Your task to perform on an android device: turn on data saver in the chrome app Image 0: 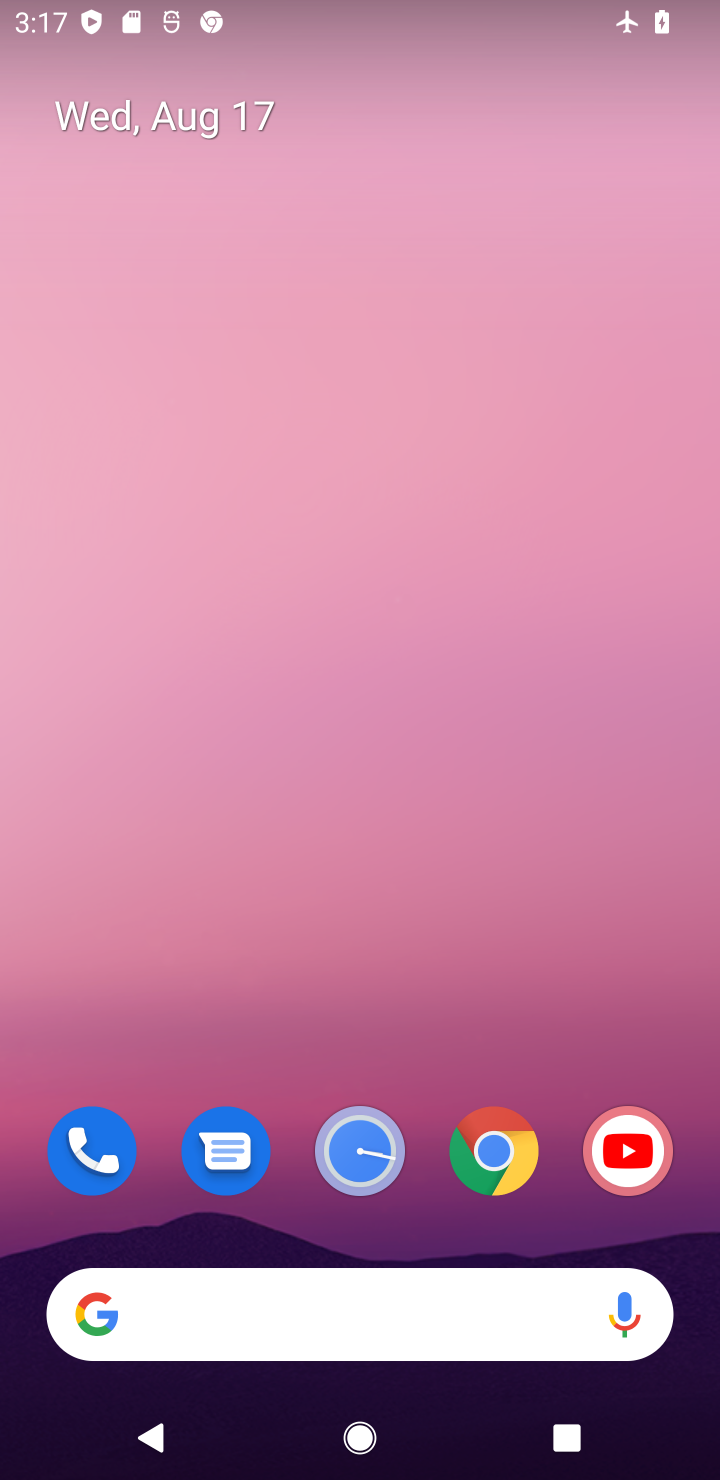
Step 0: drag from (386, 1227) to (387, 24)
Your task to perform on an android device: turn on data saver in the chrome app Image 1: 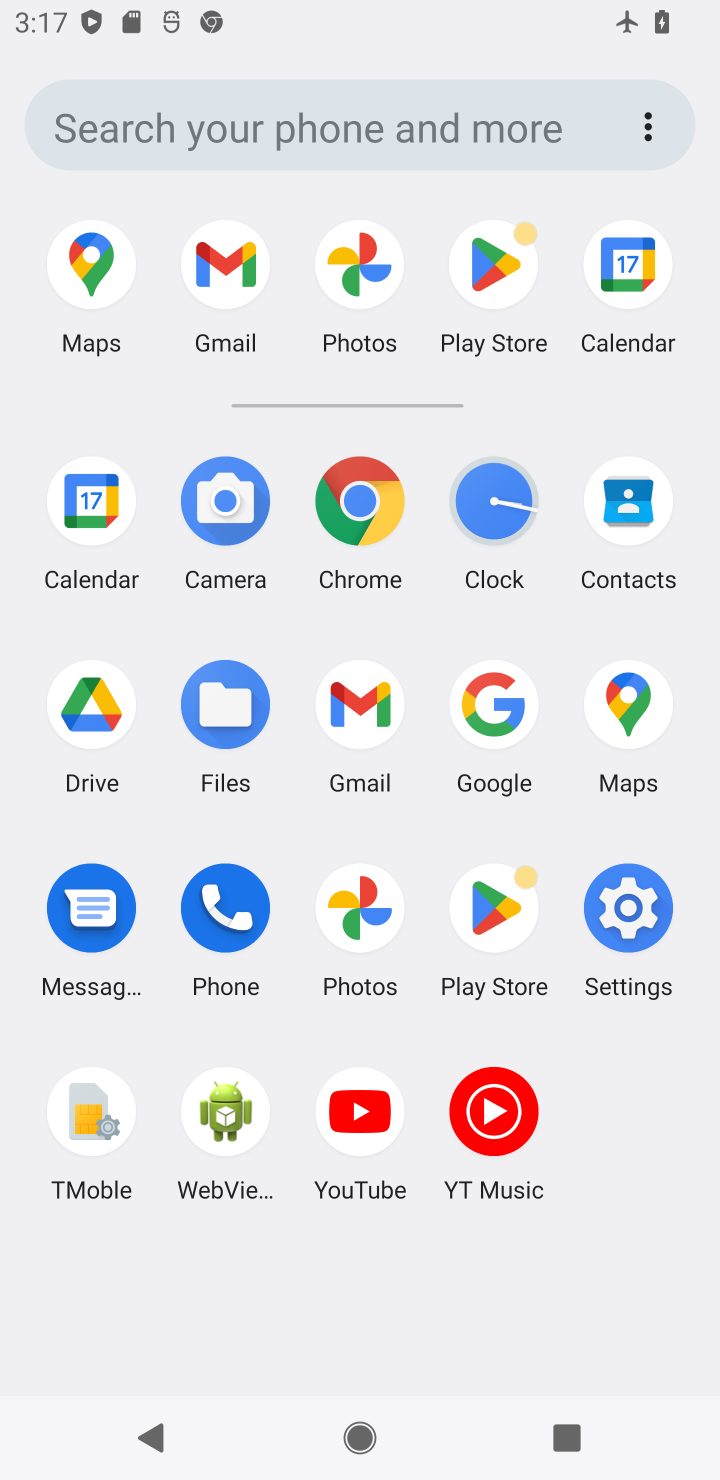
Step 1: click (370, 502)
Your task to perform on an android device: turn on data saver in the chrome app Image 2: 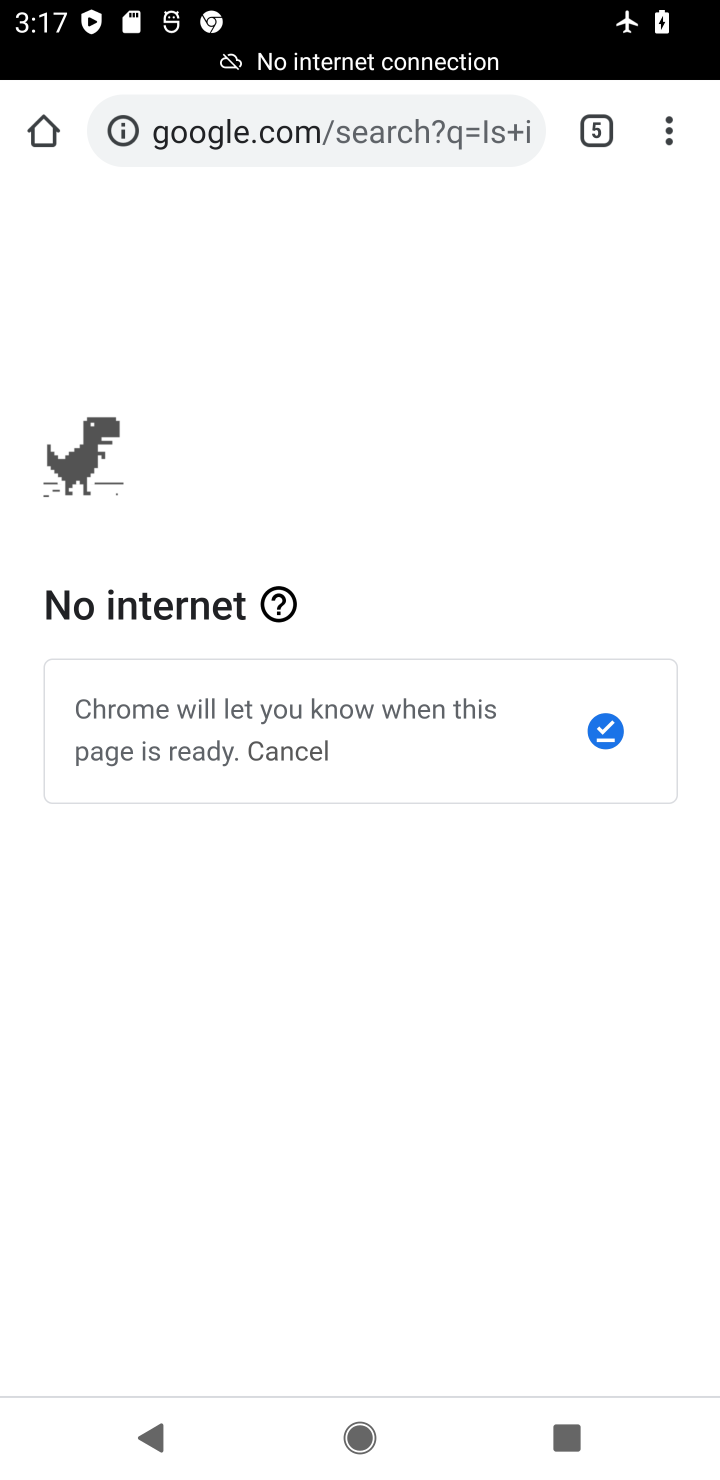
Step 2: click (667, 123)
Your task to perform on an android device: turn on data saver in the chrome app Image 3: 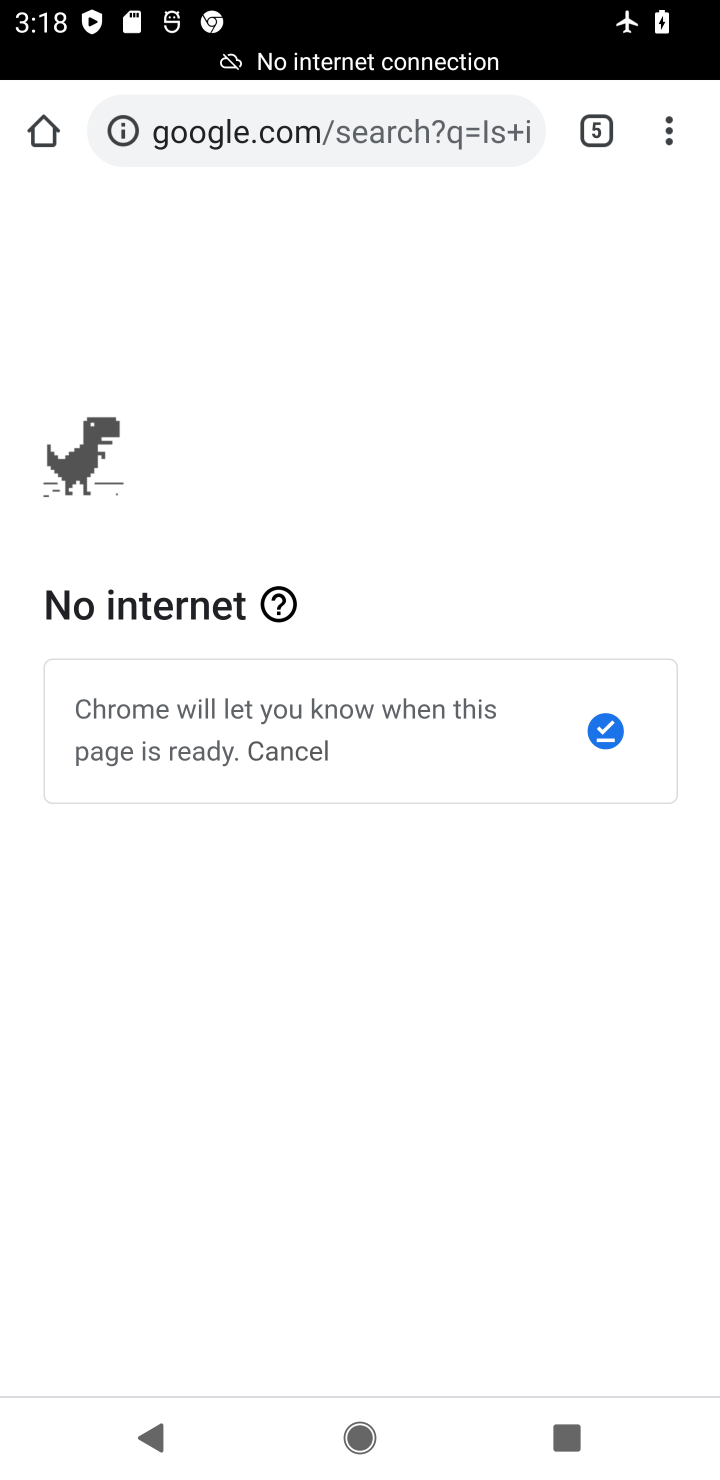
Step 3: click (667, 123)
Your task to perform on an android device: turn on data saver in the chrome app Image 4: 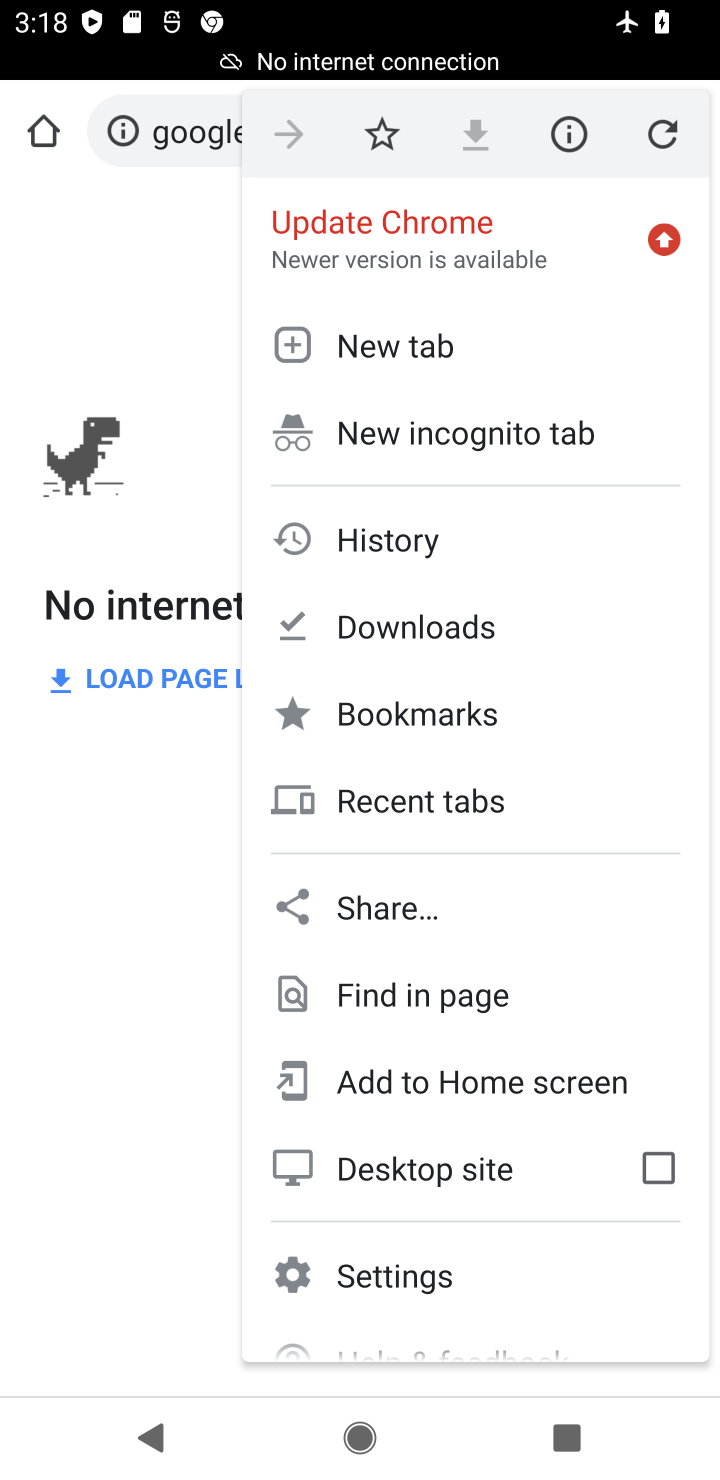
Step 4: click (408, 1262)
Your task to perform on an android device: turn on data saver in the chrome app Image 5: 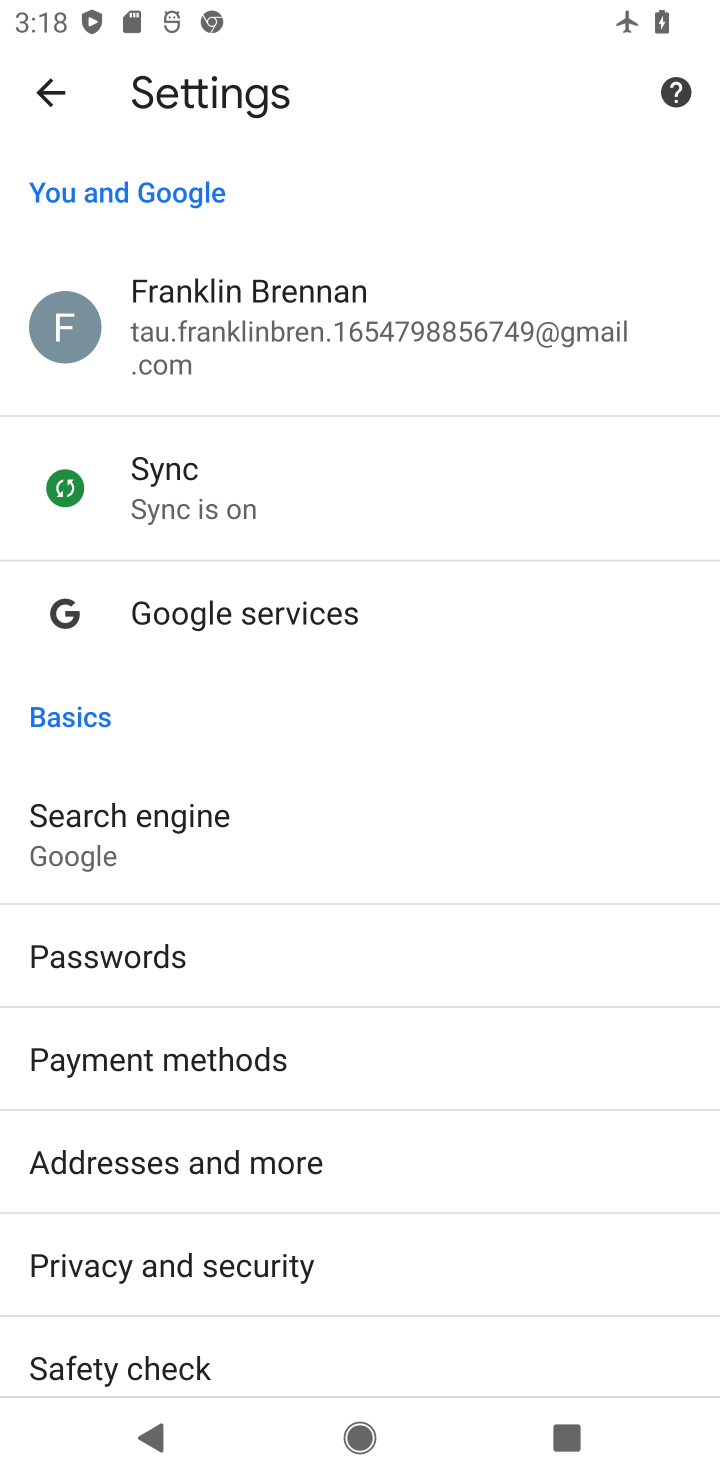
Step 5: drag from (314, 1170) to (338, 350)
Your task to perform on an android device: turn on data saver in the chrome app Image 6: 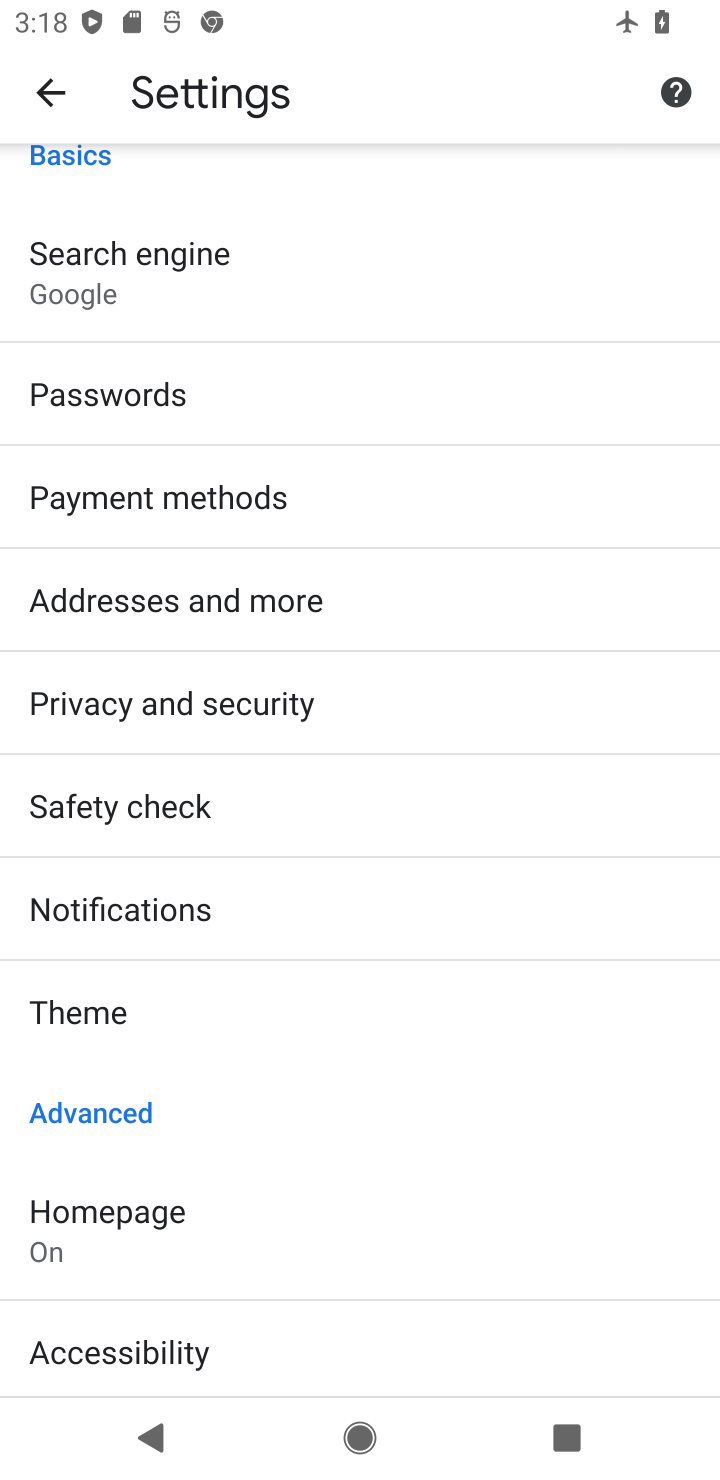
Step 6: drag from (266, 1276) to (421, 447)
Your task to perform on an android device: turn on data saver in the chrome app Image 7: 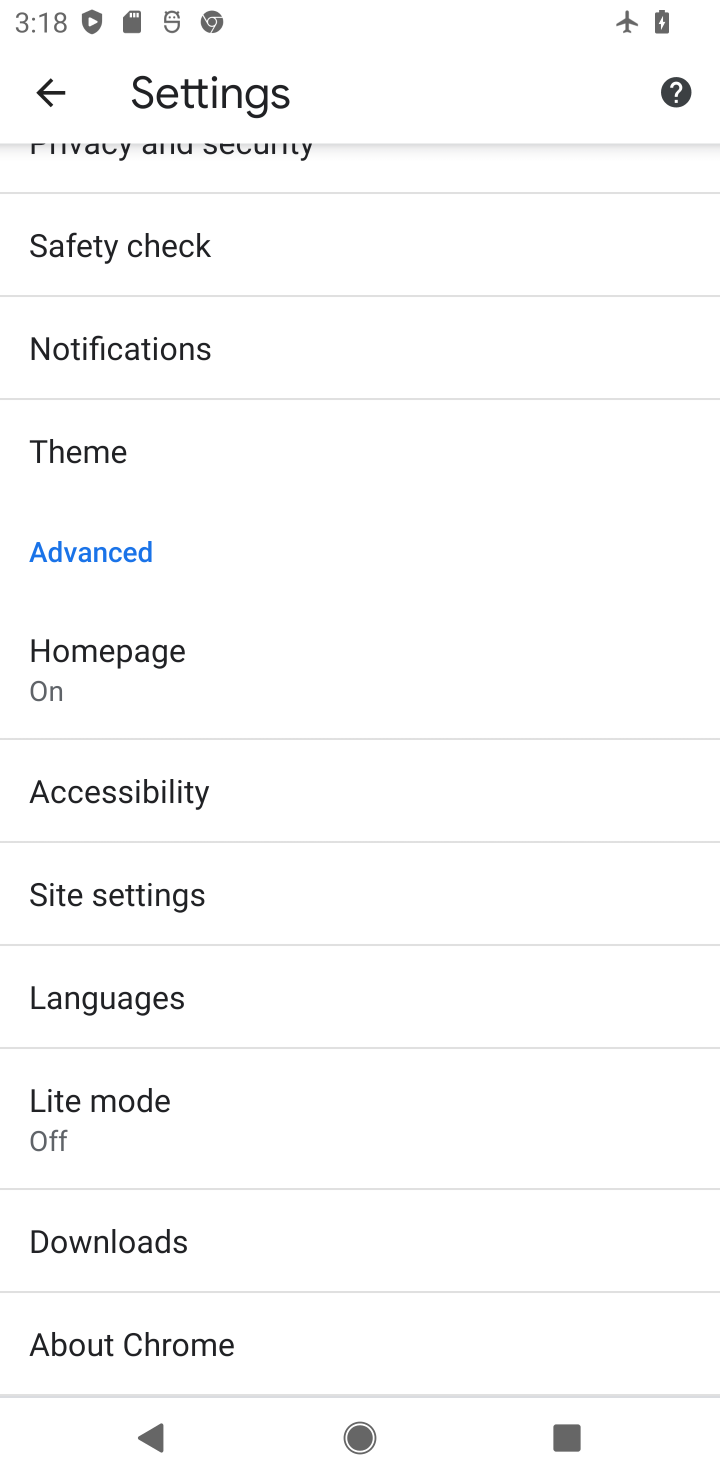
Step 7: click (199, 1119)
Your task to perform on an android device: turn on data saver in the chrome app Image 8: 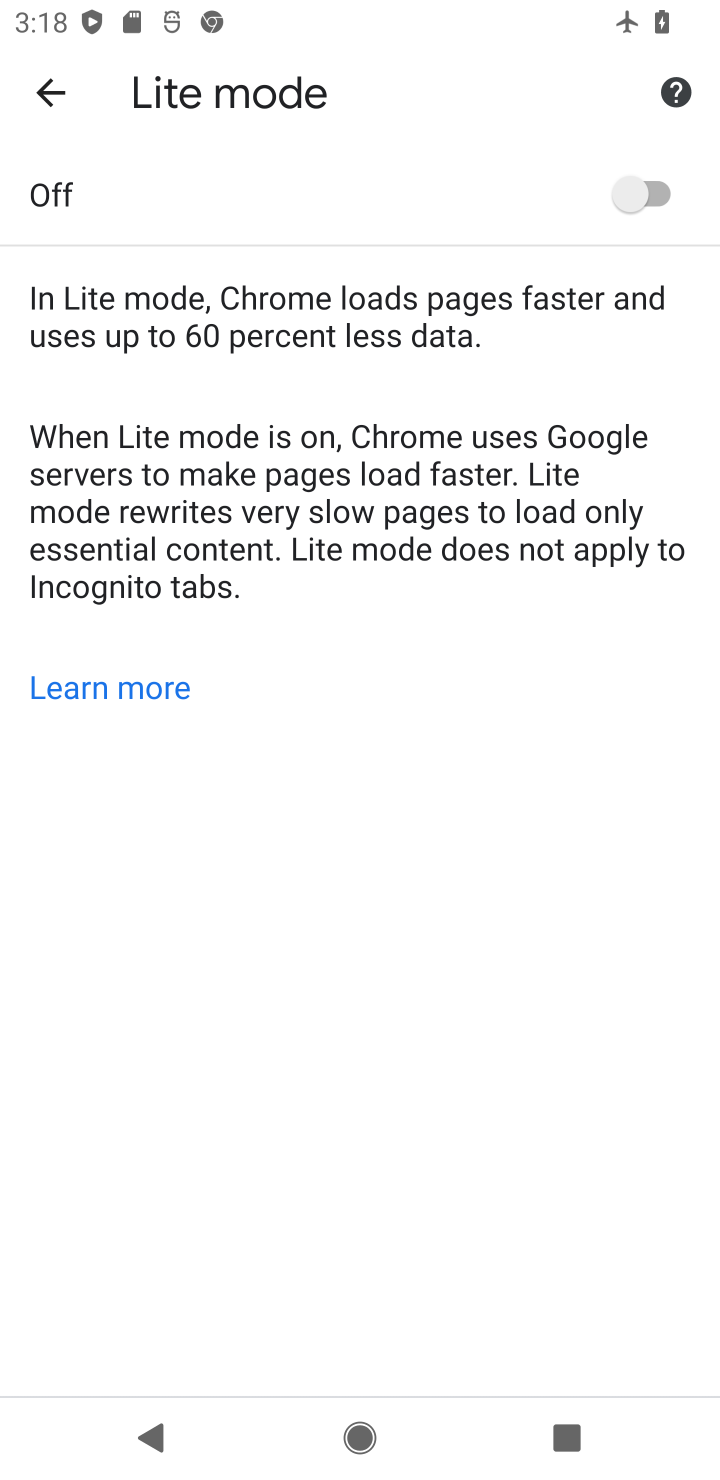
Step 8: click (649, 201)
Your task to perform on an android device: turn on data saver in the chrome app Image 9: 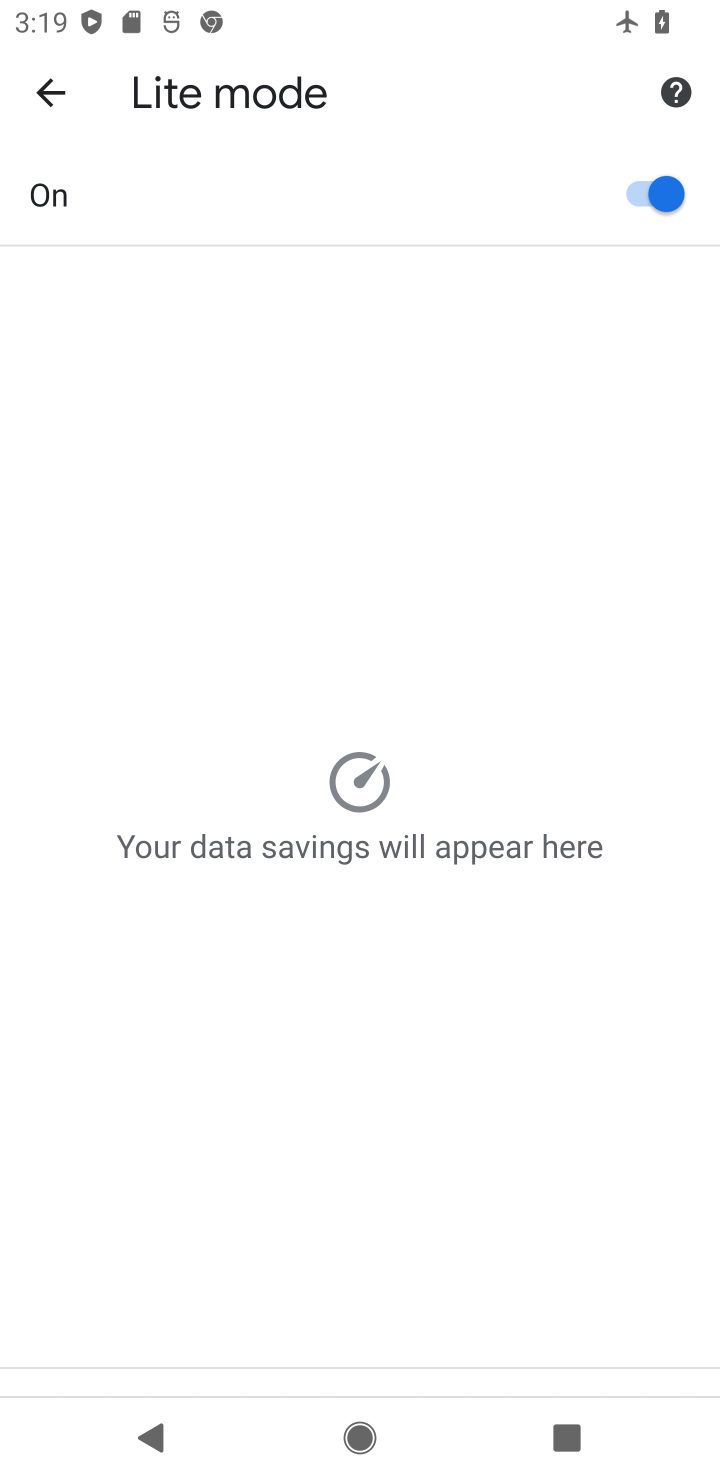
Step 9: task complete